Your task to perform on an android device: set an alarm Image 0: 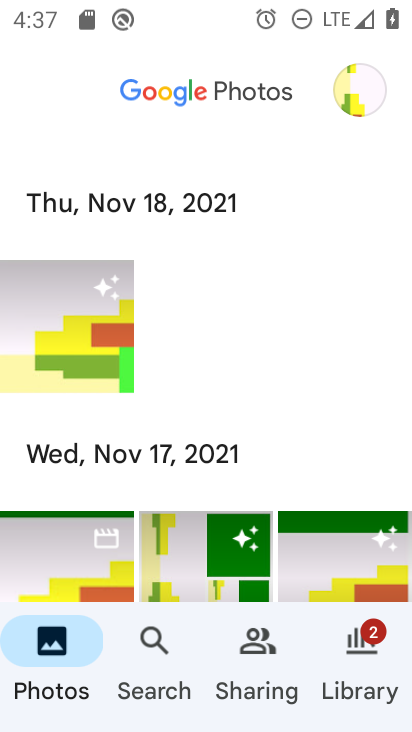
Step 0: press home button
Your task to perform on an android device: set an alarm Image 1: 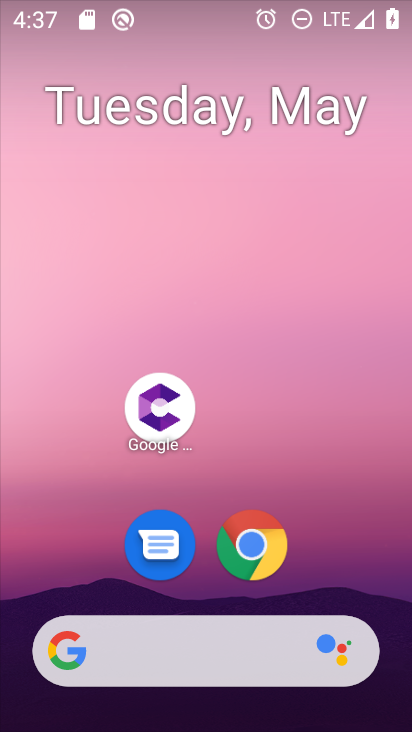
Step 1: drag from (340, 558) to (362, 214)
Your task to perform on an android device: set an alarm Image 2: 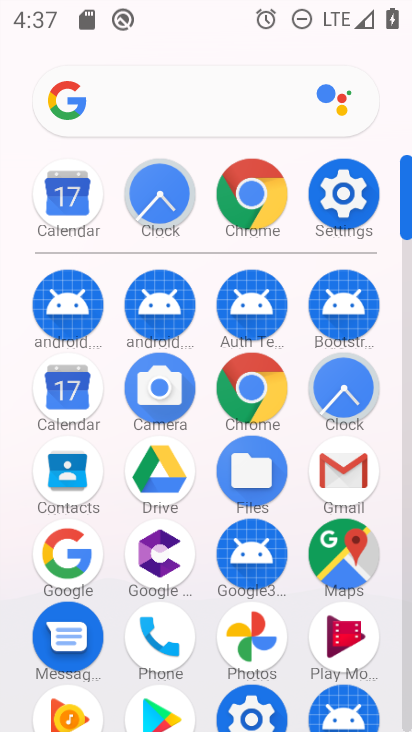
Step 2: click (342, 395)
Your task to perform on an android device: set an alarm Image 3: 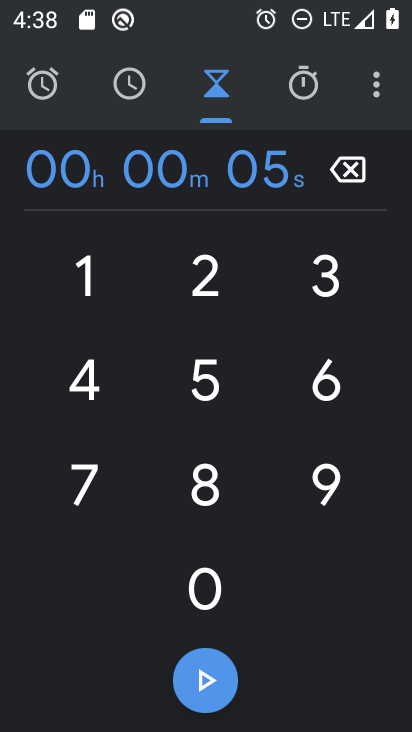
Step 3: click (54, 97)
Your task to perform on an android device: set an alarm Image 4: 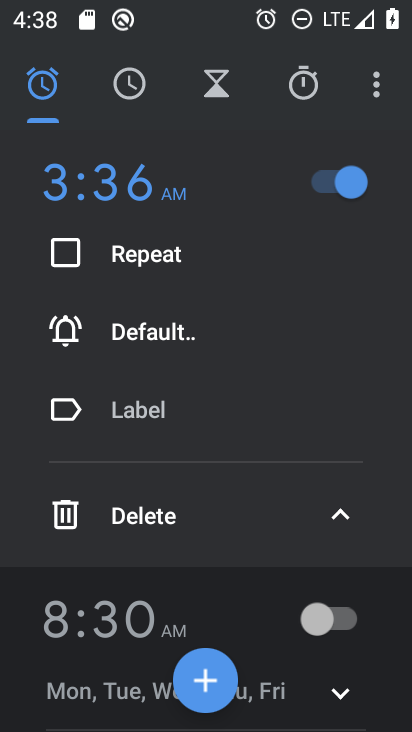
Step 4: click (205, 685)
Your task to perform on an android device: set an alarm Image 5: 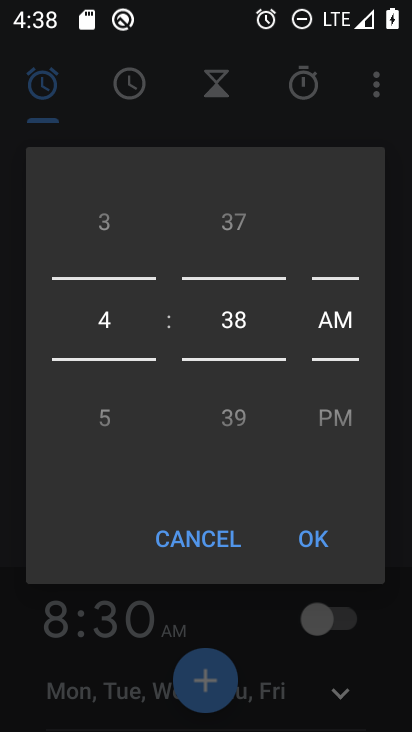
Step 5: click (302, 541)
Your task to perform on an android device: set an alarm Image 6: 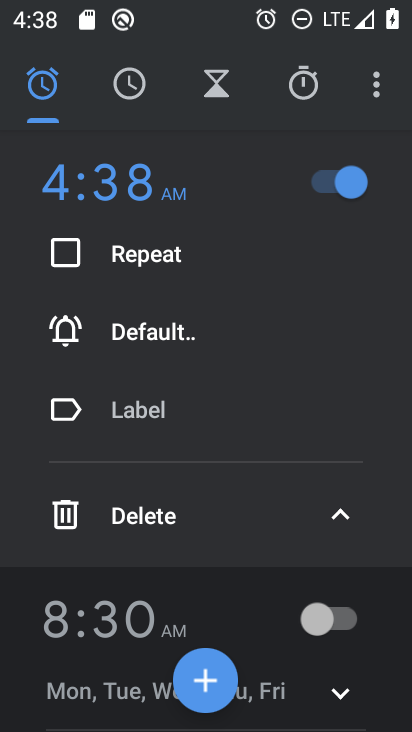
Step 6: task complete